Your task to perform on an android device: Open calendar and show me the second week of next month Image 0: 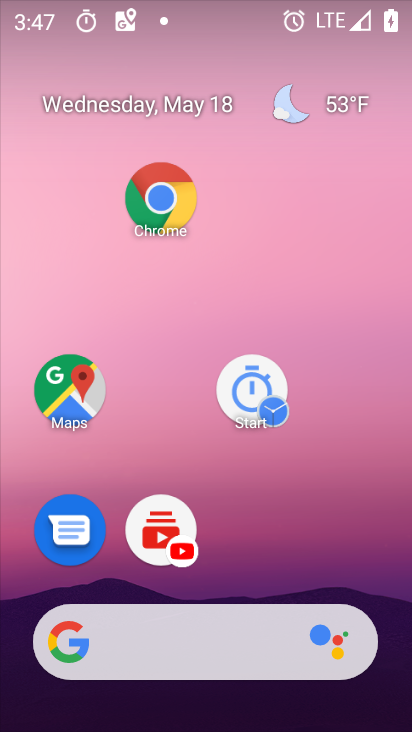
Step 0: drag from (312, 636) to (239, 116)
Your task to perform on an android device: Open calendar and show me the second week of next month Image 1: 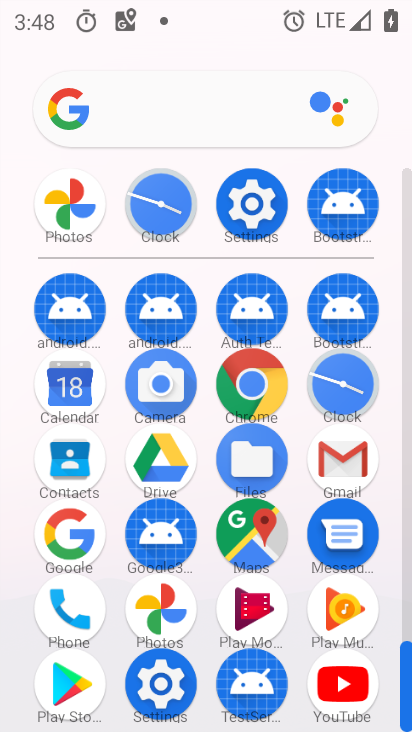
Step 1: click (80, 378)
Your task to perform on an android device: Open calendar and show me the second week of next month Image 2: 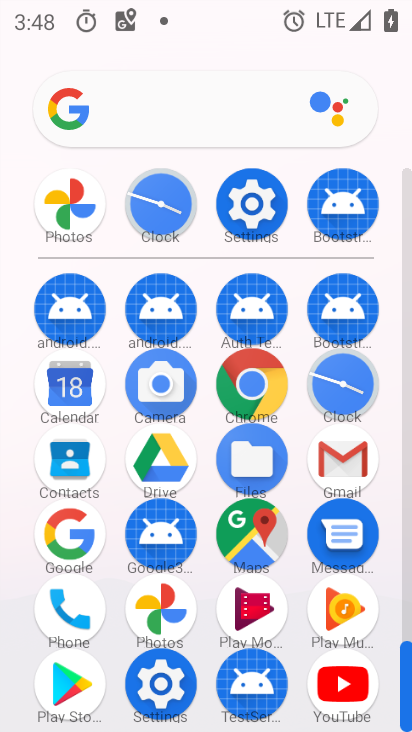
Step 2: click (53, 383)
Your task to perform on an android device: Open calendar and show me the second week of next month Image 3: 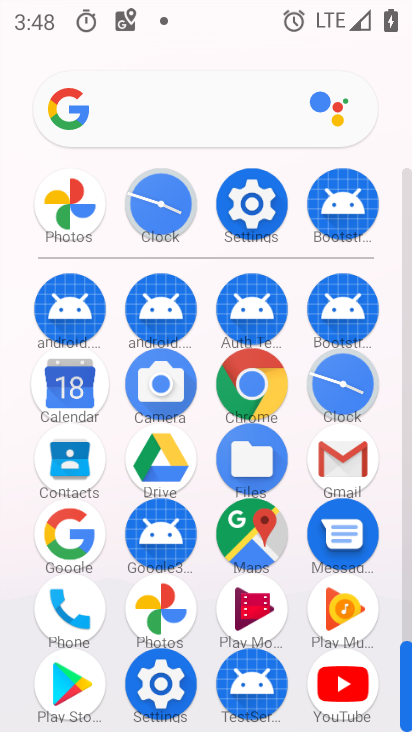
Step 3: click (61, 386)
Your task to perform on an android device: Open calendar and show me the second week of next month Image 4: 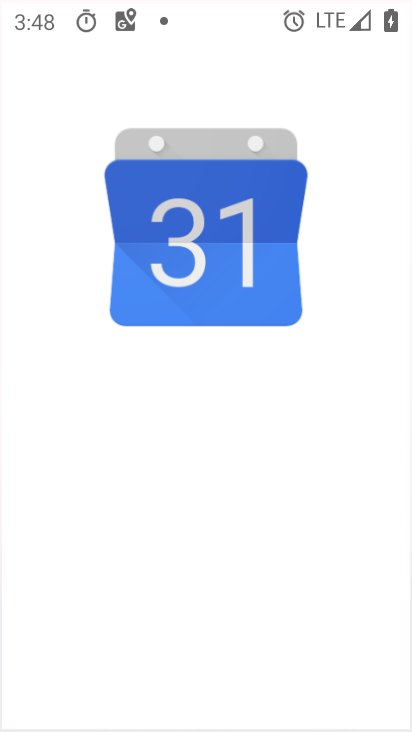
Step 4: click (65, 389)
Your task to perform on an android device: Open calendar and show me the second week of next month Image 5: 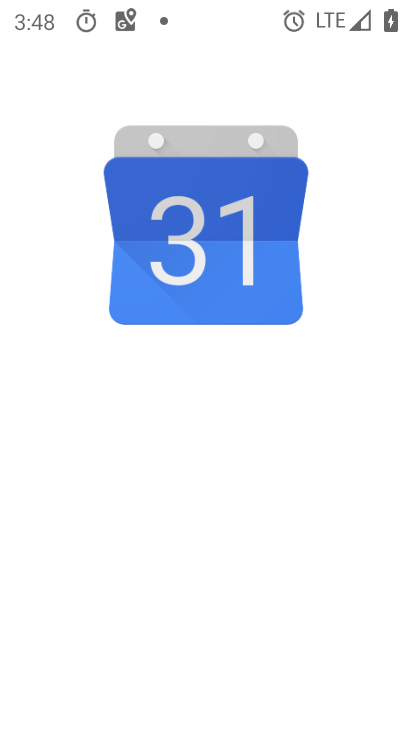
Step 5: click (66, 389)
Your task to perform on an android device: Open calendar and show me the second week of next month Image 6: 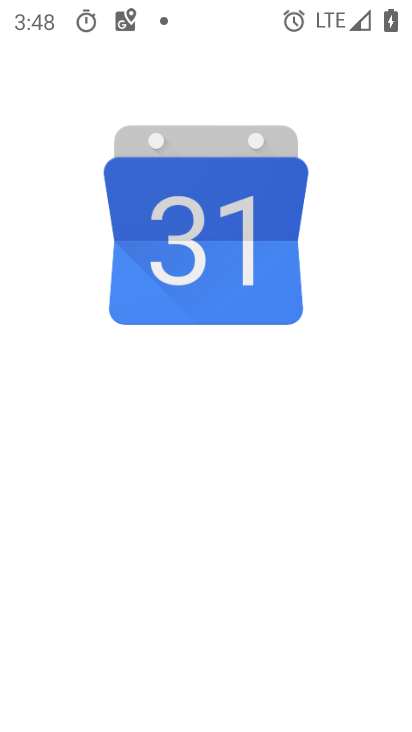
Step 6: click (66, 389)
Your task to perform on an android device: Open calendar and show me the second week of next month Image 7: 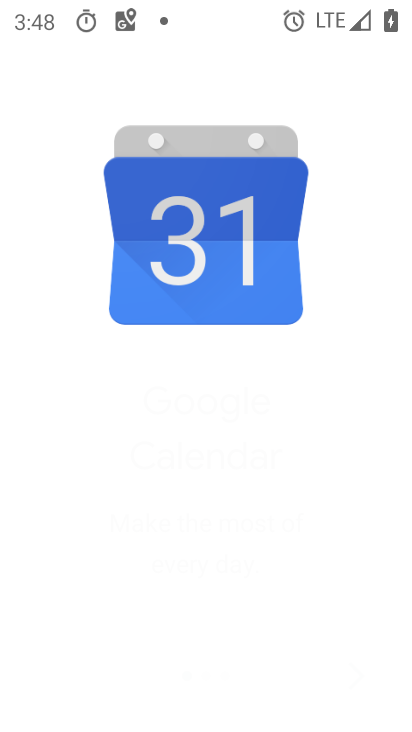
Step 7: click (67, 390)
Your task to perform on an android device: Open calendar and show me the second week of next month Image 8: 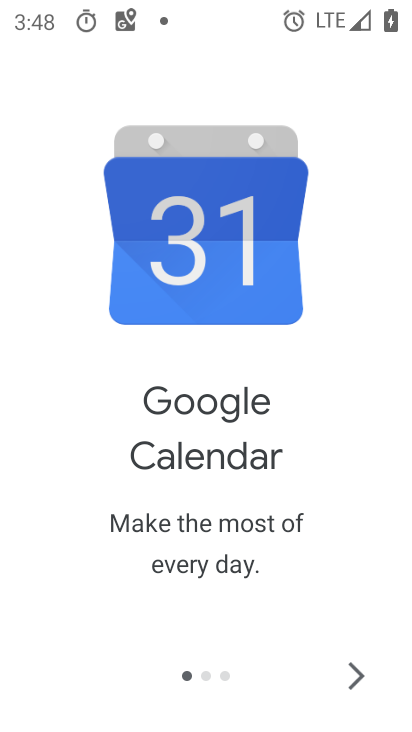
Step 8: click (345, 679)
Your task to perform on an android device: Open calendar and show me the second week of next month Image 9: 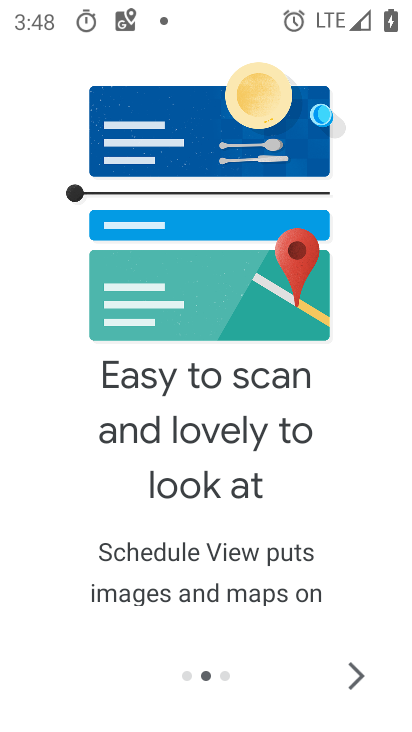
Step 9: click (362, 679)
Your task to perform on an android device: Open calendar and show me the second week of next month Image 10: 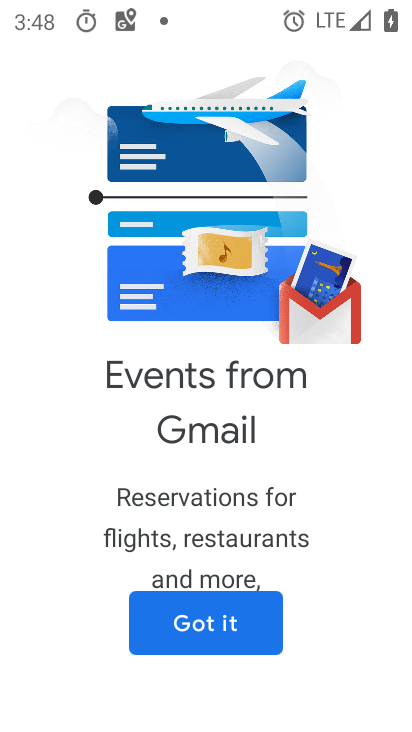
Step 10: click (355, 672)
Your task to perform on an android device: Open calendar and show me the second week of next month Image 11: 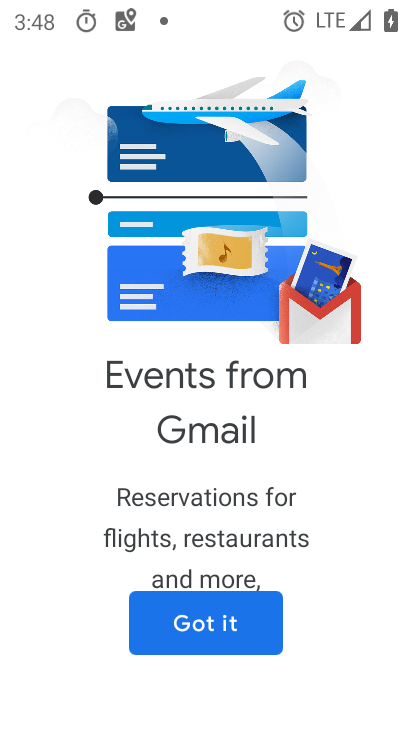
Step 11: click (358, 653)
Your task to perform on an android device: Open calendar and show me the second week of next month Image 12: 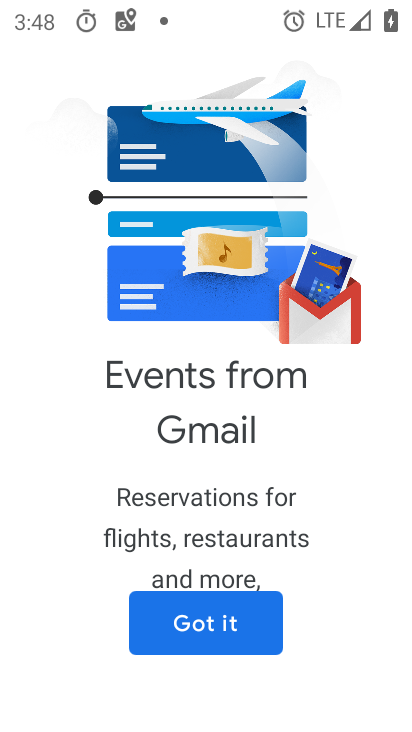
Step 12: click (232, 610)
Your task to perform on an android device: Open calendar and show me the second week of next month Image 13: 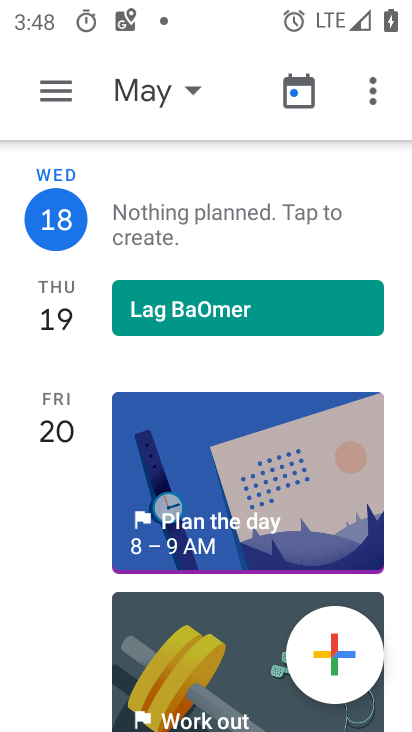
Step 13: click (190, 89)
Your task to perform on an android device: Open calendar and show me the second week of next month Image 14: 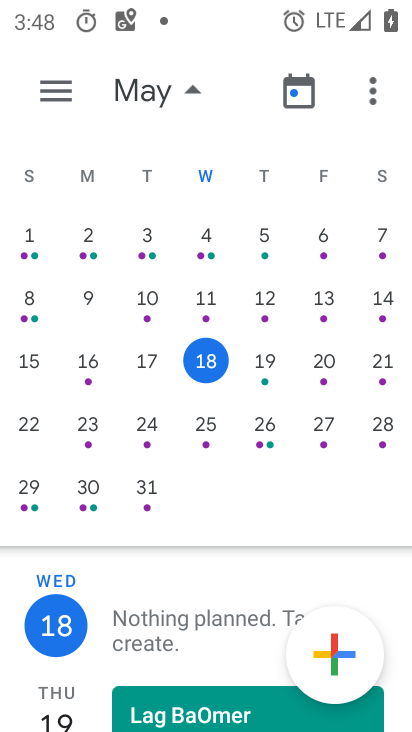
Step 14: drag from (251, 370) to (4, 356)
Your task to perform on an android device: Open calendar and show me the second week of next month Image 15: 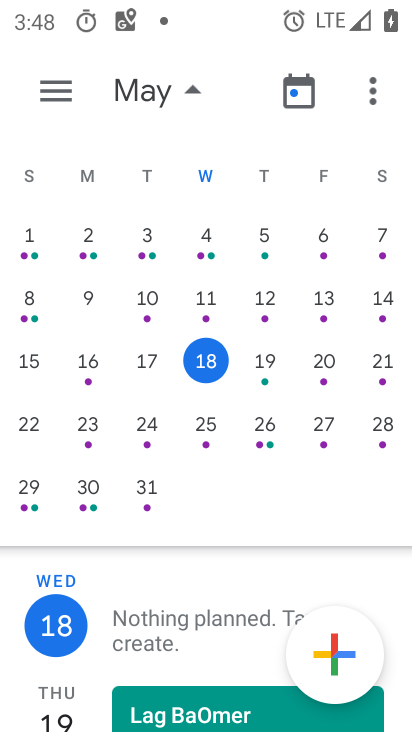
Step 15: drag from (247, 362) to (1, 425)
Your task to perform on an android device: Open calendar and show me the second week of next month Image 16: 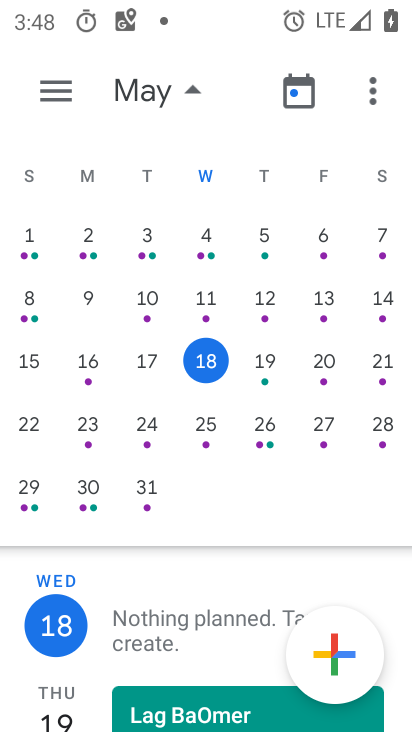
Step 16: drag from (280, 348) to (52, 443)
Your task to perform on an android device: Open calendar and show me the second week of next month Image 17: 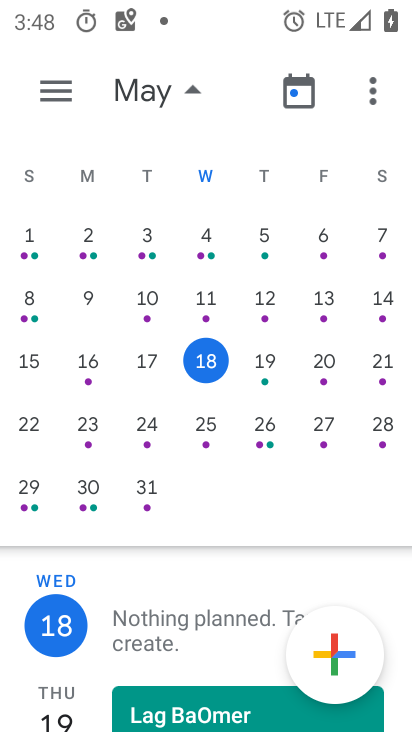
Step 17: drag from (319, 384) to (31, 460)
Your task to perform on an android device: Open calendar and show me the second week of next month Image 18: 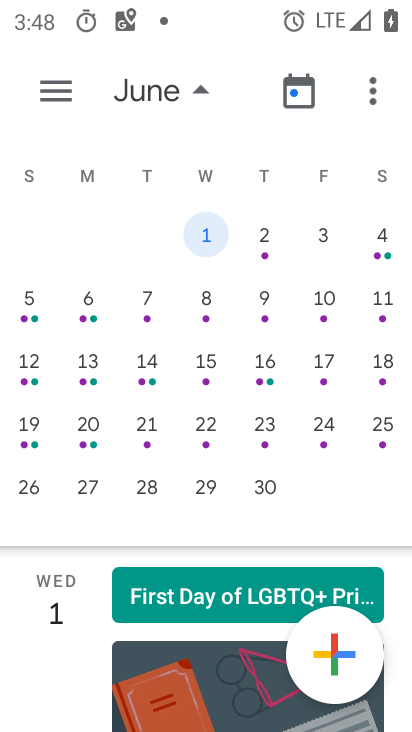
Step 18: drag from (280, 382) to (45, 384)
Your task to perform on an android device: Open calendar and show me the second week of next month Image 19: 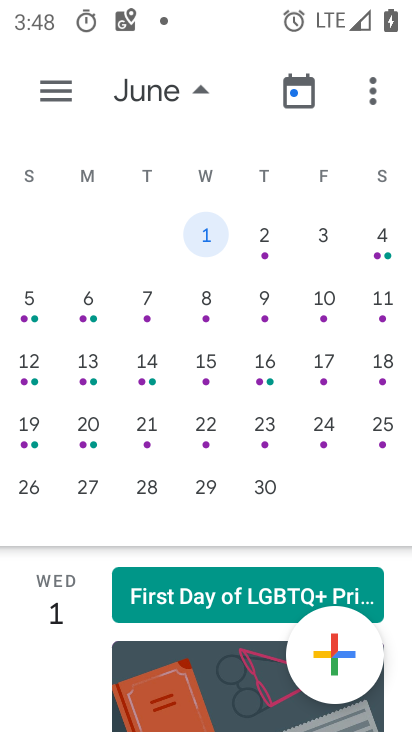
Step 19: drag from (125, 360) to (9, 384)
Your task to perform on an android device: Open calendar and show me the second week of next month Image 20: 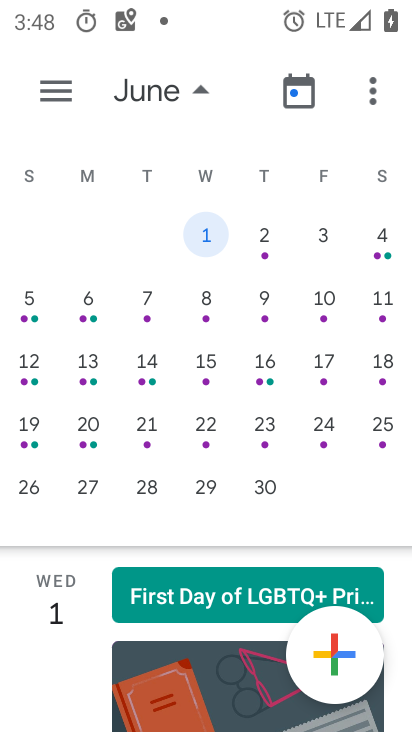
Step 20: drag from (238, 349) to (10, 367)
Your task to perform on an android device: Open calendar and show me the second week of next month Image 21: 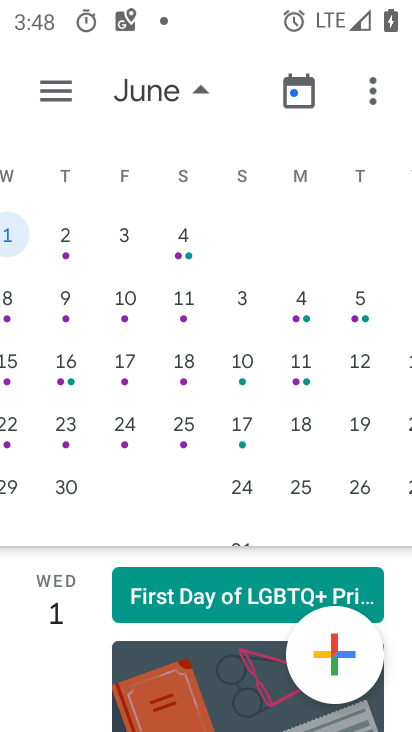
Step 21: drag from (273, 375) to (16, 457)
Your task to perform on an android device: Open calendar and show me the second week of next month Image 22: 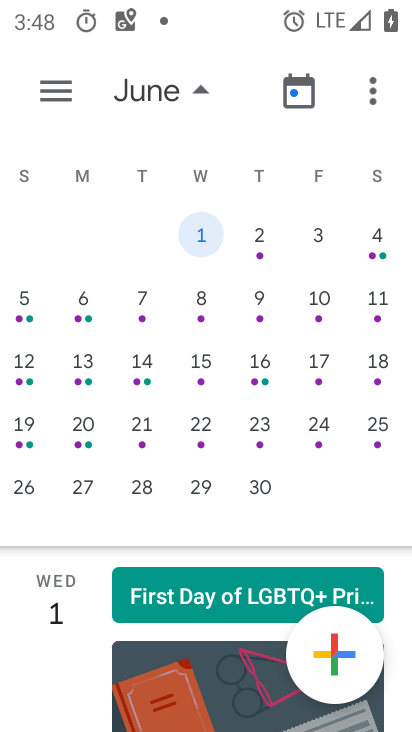
Step 22: drag from (330, 431) to (14, 409)
Your task to perform on an android device: Open calendar and show me the second week of next month Image 23: 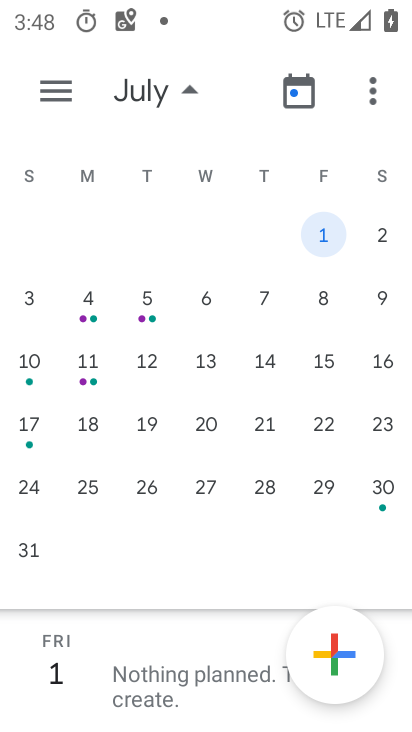
Step 23: drag from (296, 356) to (3, 502)
Your task to perform on an android device: Open calendar and show me the second week of next month Image 24: 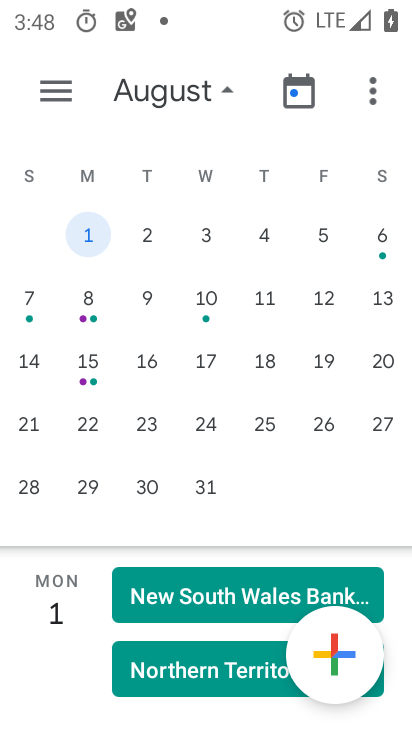
Step 24: drag from (190, 414) to (7, 425)
Your task to perform on an android device: Open calendar and show me the second week of next month Image 25: 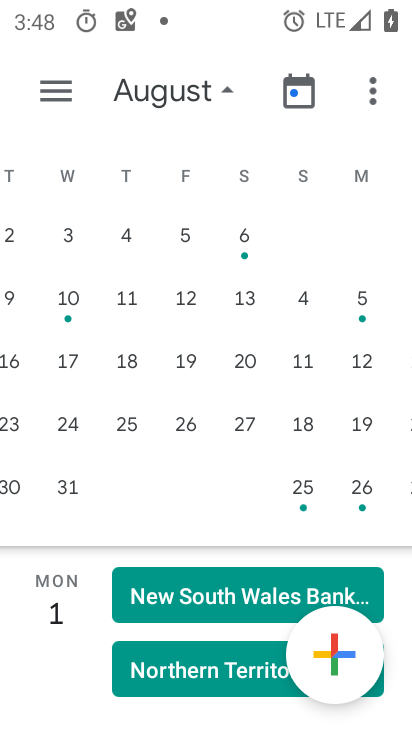
Step 25: drag from (305, 368) to (31, 342)
Your task to perform on an android device: Open calendar and show me the second week of next month Image 26: 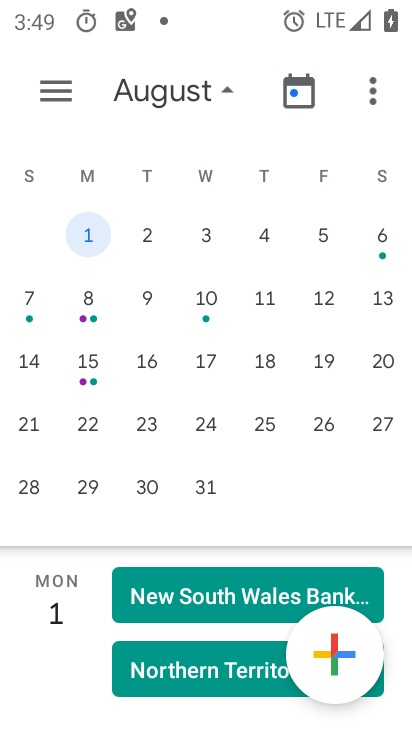
Step 26: drag from (223, 345) to (28, 436)
Your task to perform on an android device: Open calendar and show me the second week of next month Image 27: 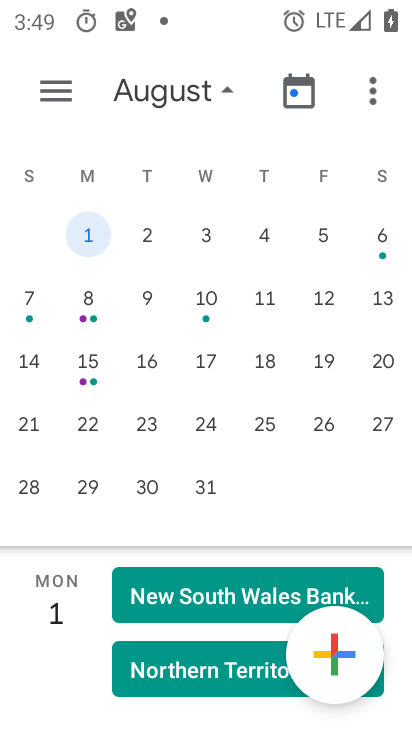
Step 27: drag from (255, 363) to (10, 386)
Your task to perform on an android device: Open calendar and show me the second week of next month Image 28: 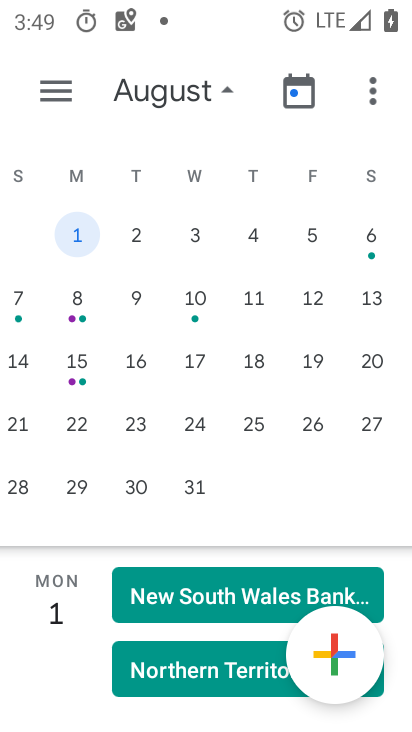
Step 28: drag from (65, 367) to (398, 365)
Your task to perform on an android device: Open calendar and show me the second week of next month Image 29: 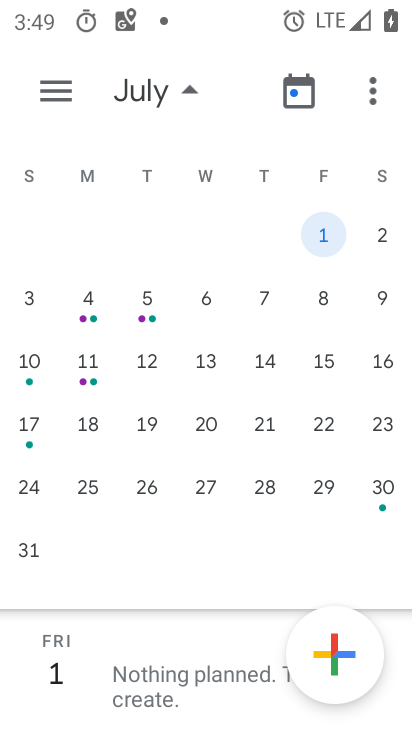
Step 29: drag from (20, 394) to (406, 402)
Your task to perform on an android device: Open calendar and show me the second week of next month Image 30: 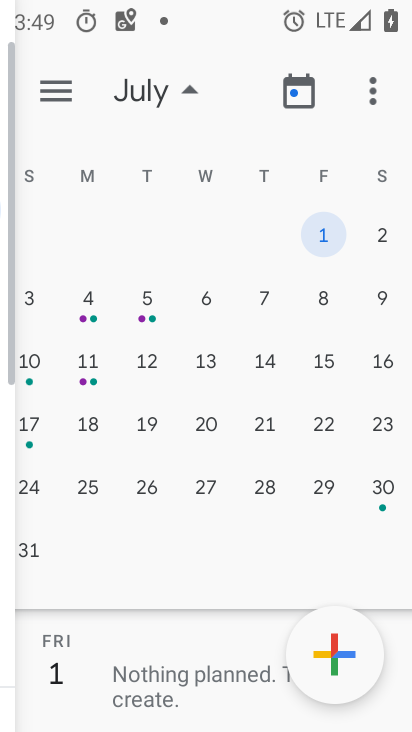
Step 30: drag from (106, 414) to (391, 405)
Your task to perform on an android device: Open calendar and show me the second week of next month Image 31: 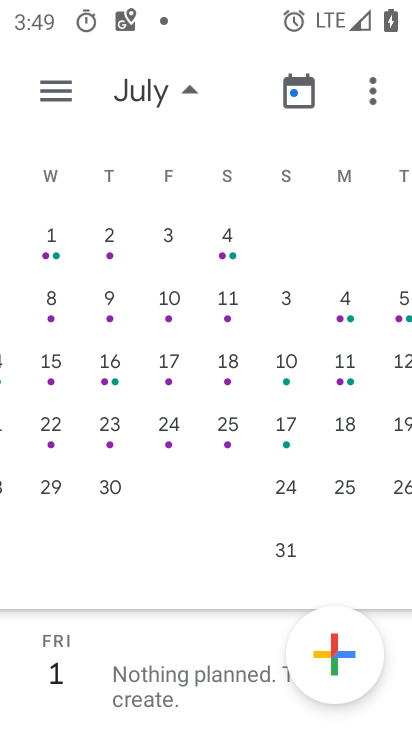
Step 31: drag from (205, 348) to (409, 320)
Your task to perform on an android device: Open calendar and show me the second week of next month Image 32: 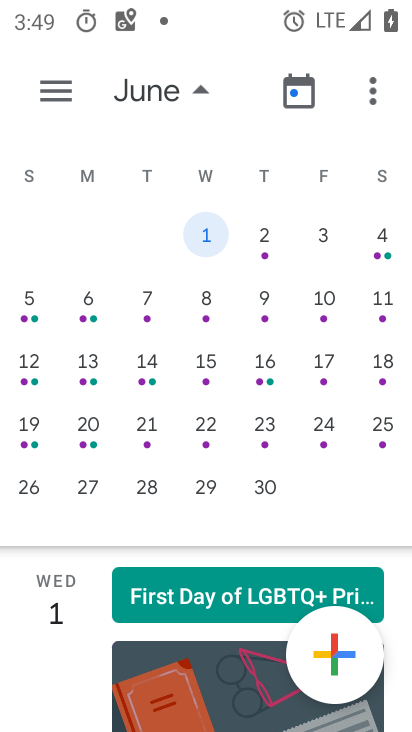
Step 32: click (206, 292)
Your task to perform on an android device: Open calendar and show me the second week of next month Image 33: 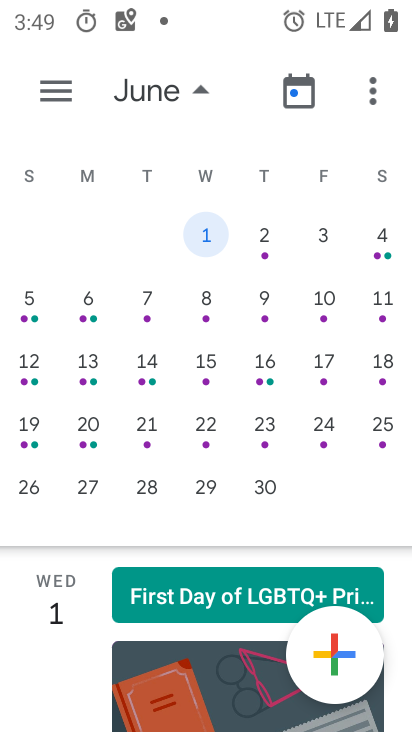
Step 33: click (206, 296)
Your task to perform on an android device: Open calendar and show me the second week of next month Image 34: 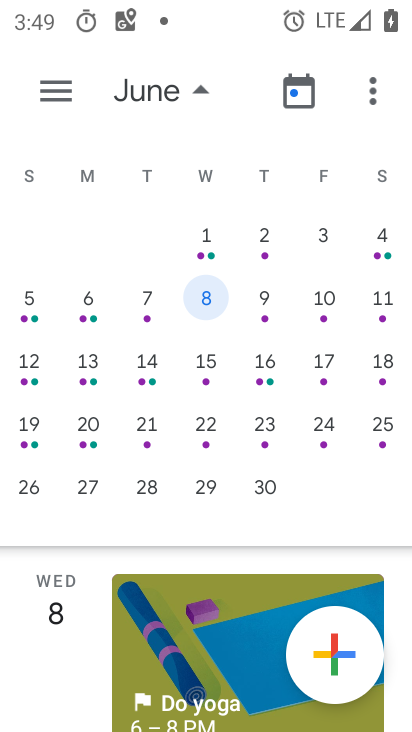
Step 34: click (206, 296)
Your task to perform on an android device: Open calendar and show me the second week of next month Image 35: 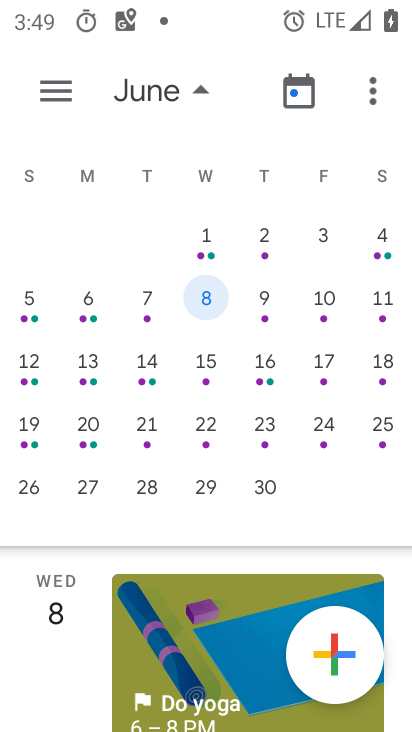
Step 35: task complete